Your task to perform on an android device: delete browsing data in the chrome app Image 0: 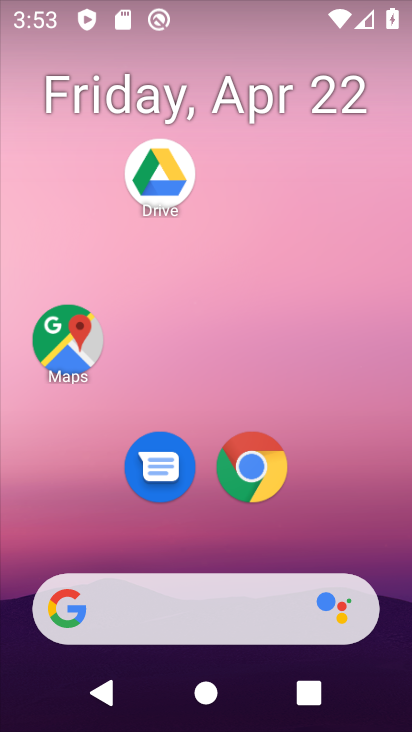
Step 0: drag from (210, 521) to (193, 96)
Your task to perform on an android device: delete browsing data in the chrome app Image 1: 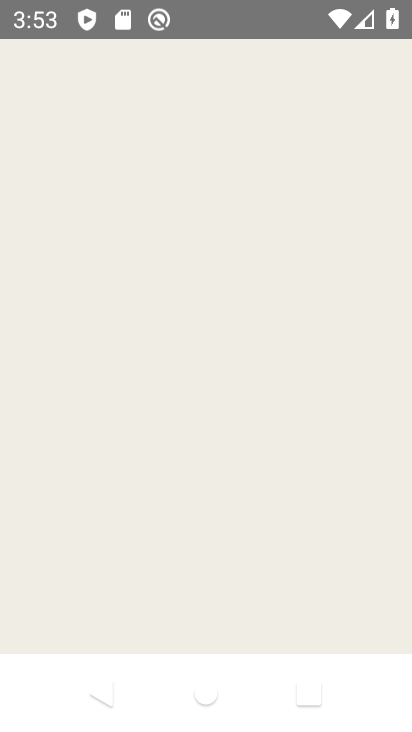
Step 1: press home button
Your task to perform on an android device: delete browsing data in the chrome app Image 2: 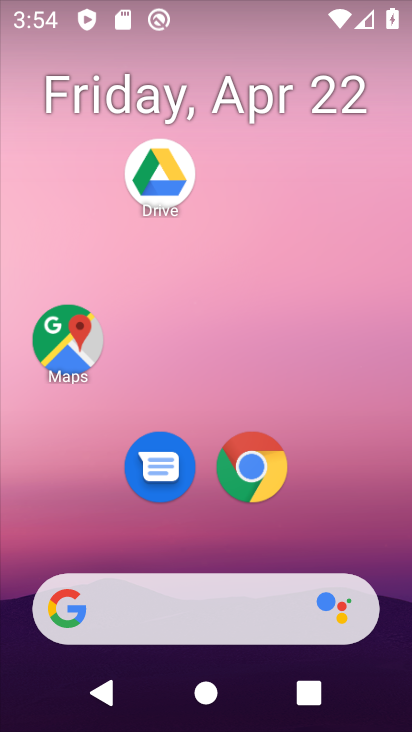
Step 2: click (248, 460)
Your task to perform on an android device: delete browsing data in the chrome app Image 3: 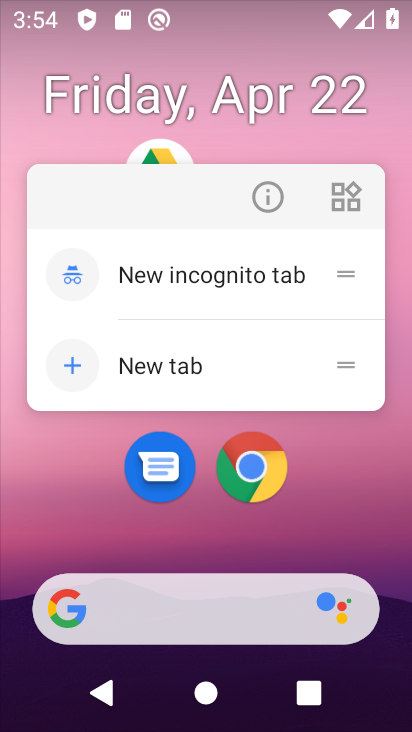
Step 3: click (205, 525)
Your task to perform on an android device: delete browsing data in the chrome app Image 4: 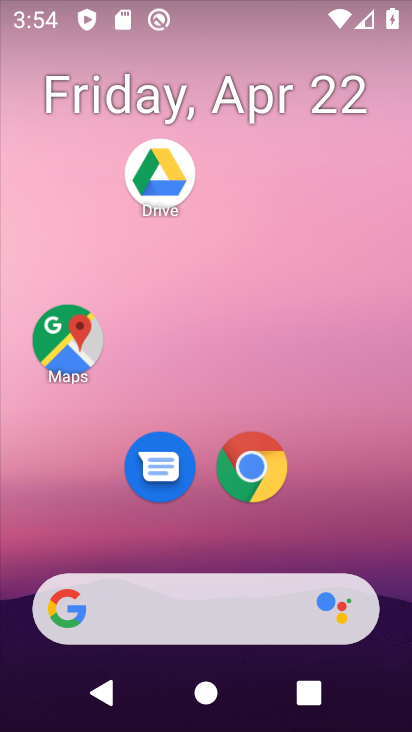
Step 4: click (251, 457)
Your task to perform on an android device: delete browsing data in the chrome app Image 5: 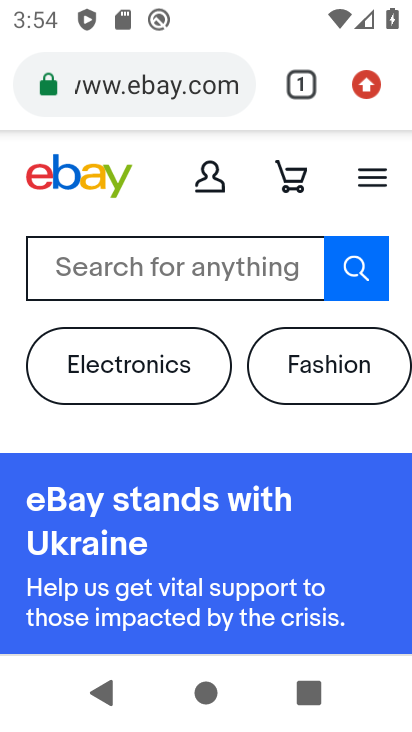
Step 5: click (362, 81)
Your task to perform on an android device: delete browsing data in the chrome app Image 6: 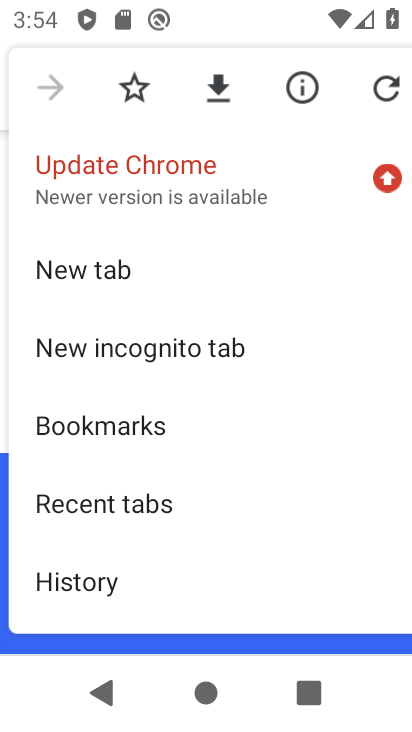
Step 6: click (129, 578)
Your task to perform on an android device: delete browsing data in the chrome app Image 7: 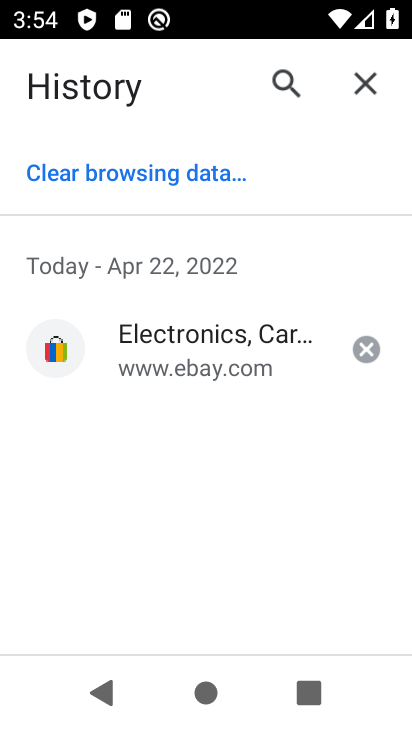
Step 7: click (127, 174)
Your task to perform on an android device: delete browsing data in the chrome app Image 8: 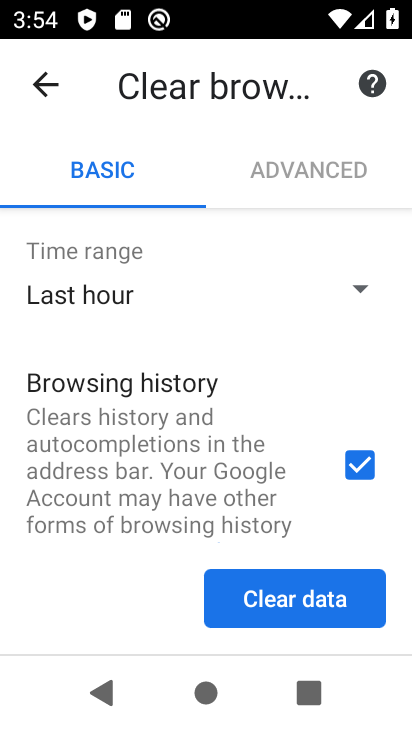
Step 8: drag from (150, 461) to (150, 155)
Your task to perform on an android device: delete browsing data in the chrome app Image 9: 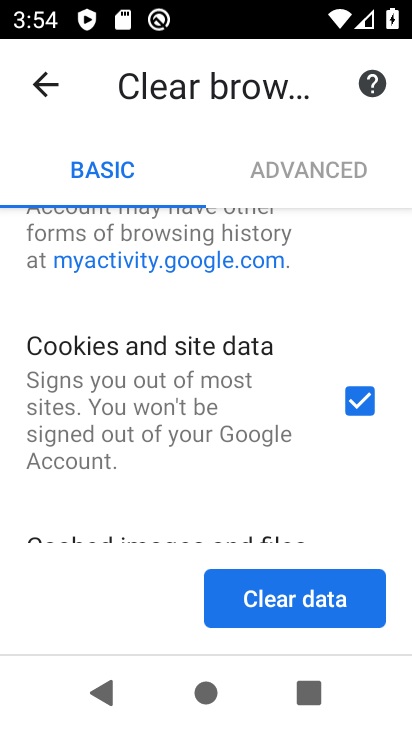
Step 9: drag from (203, 487) to (201, 207)
Your task to perform on an android device: delete browsing data in the chrome app Image 10: 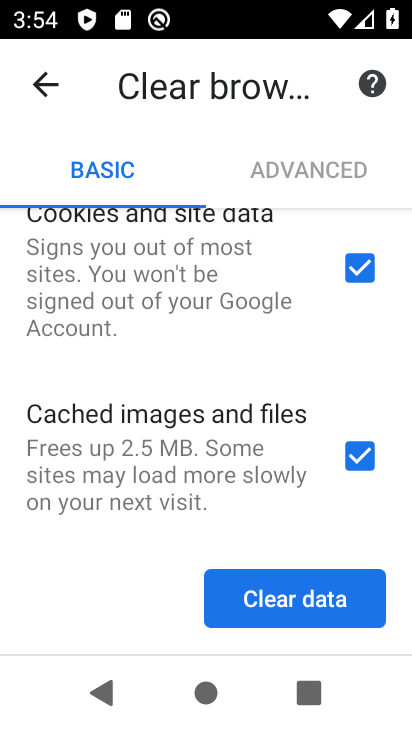
Step 10: click (295, 604)
Your task to perform on an android device: delete browsing data in the chrome app Image 11: 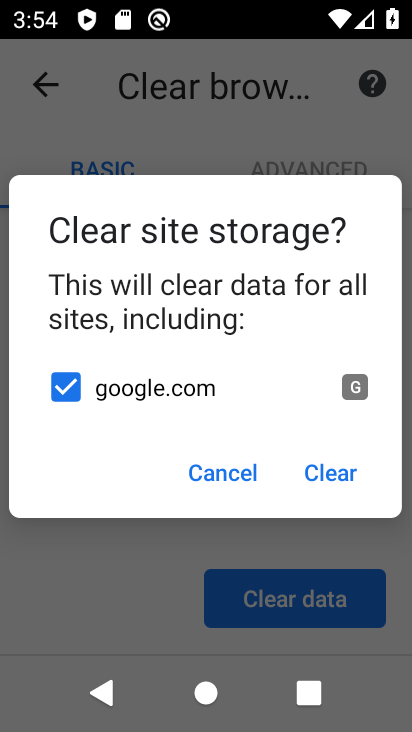
Step 11: click (331, 471)
Your task to perform on an android device: delete browsing data in the chrome app Image 12: 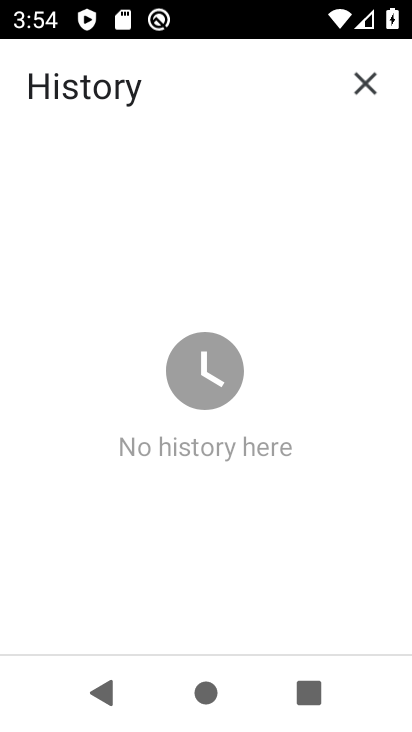
Step 12: task complete